Your task to perform on an android device: Is it going to rain today? Image 0: 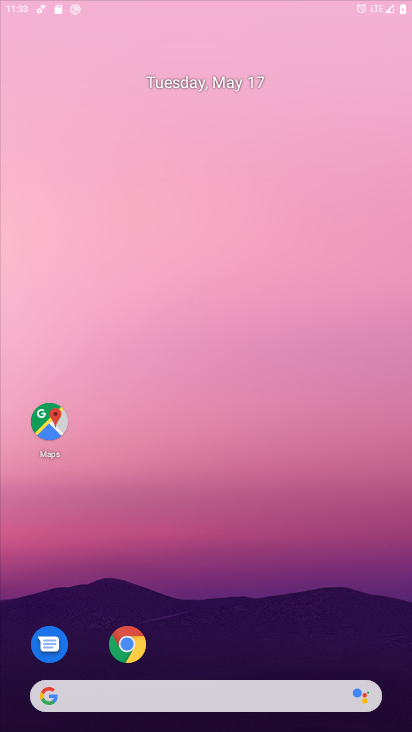
Step 0: press home button
Your task to perform on an android device: Is it going to rain today? Image 1: 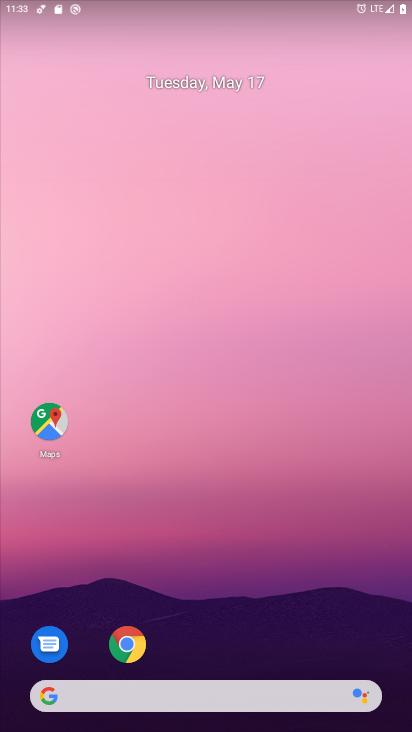
Step 1: drag from (8, 287) to (388, 313)
Your task to perform on an android device: Is it going to rain today? Image 2: 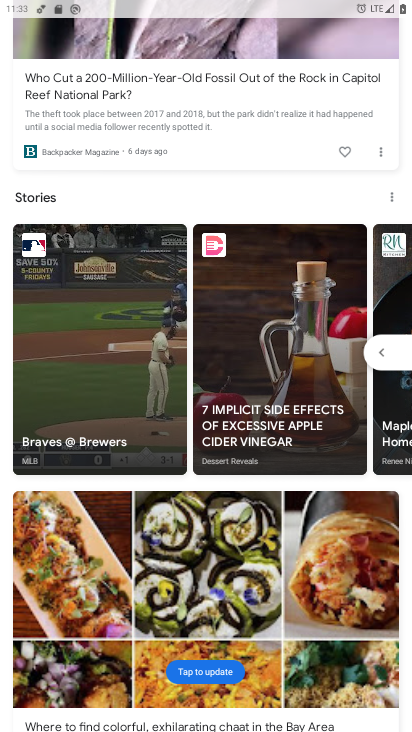
Step 2: drag from (214, 126) to (207, 724)
Your task to perform on an android device: Is it going to rain today? Image 3: 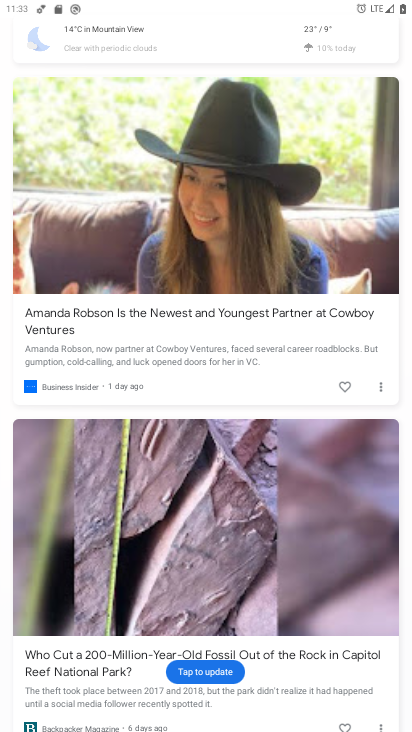
Step 3: drag from (220, 114) to (183, 600)
Your task to perform on an android device: Is it going to rain today? Image 4: 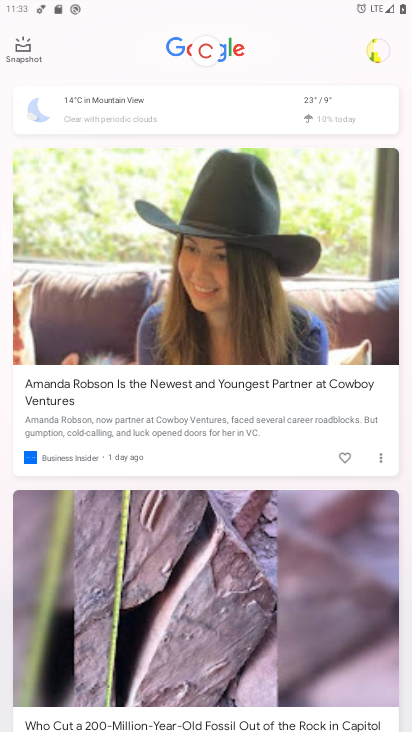
Step 4: click (297, 106)
Your task to perform on an android device: Is it going to rain today? Image 5: 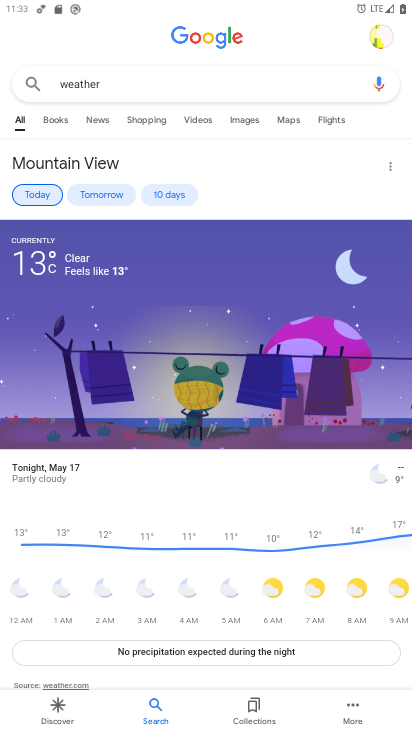
Step 5: task complete